Your task to perform on an android device: check storage Image 0: 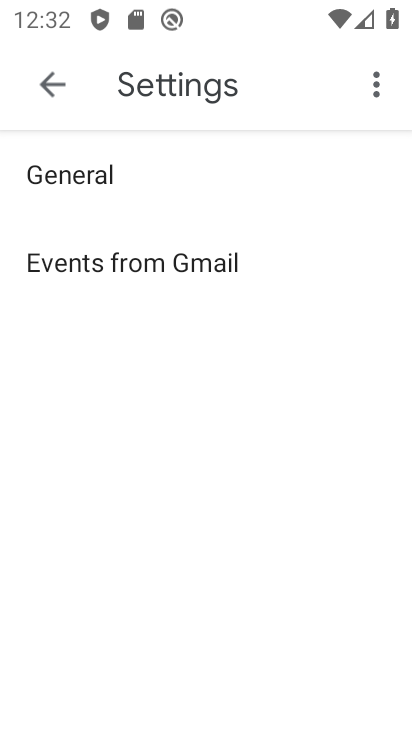
Step 0: press home button
Your task to perform on an android device: check storage Image 1: 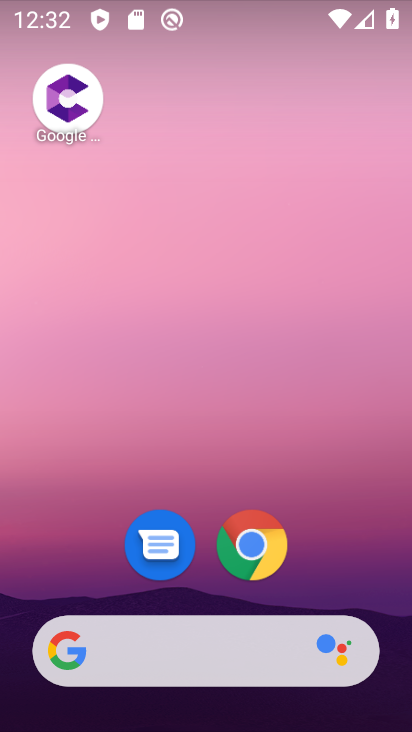
Step 1: drag from (343, 569) to (310, 210)
Your task to perform on an android device: check storage Image 2: 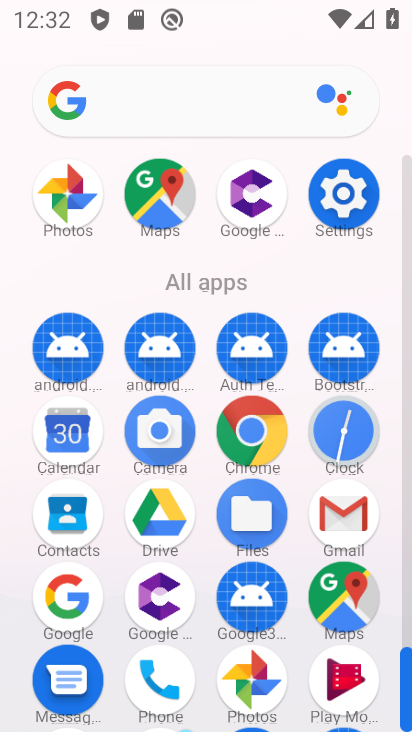
Step 2: click (363, 211)
Your task to perform on an android device: check storage Image 3: 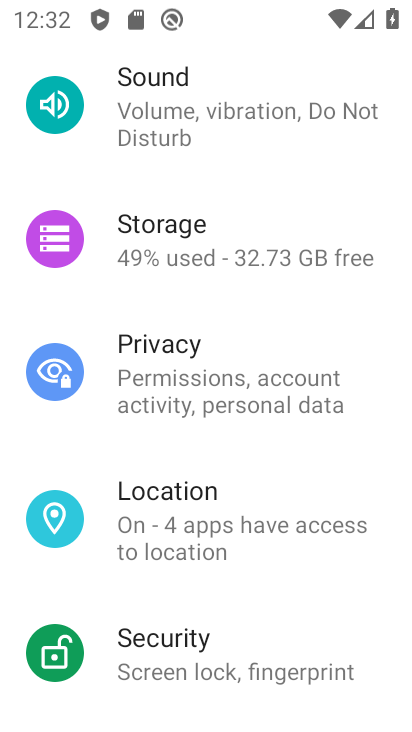
Step 3: drag from (327, 620) to (321, 335)
Your task to perform on an android device: check storage Image 4: 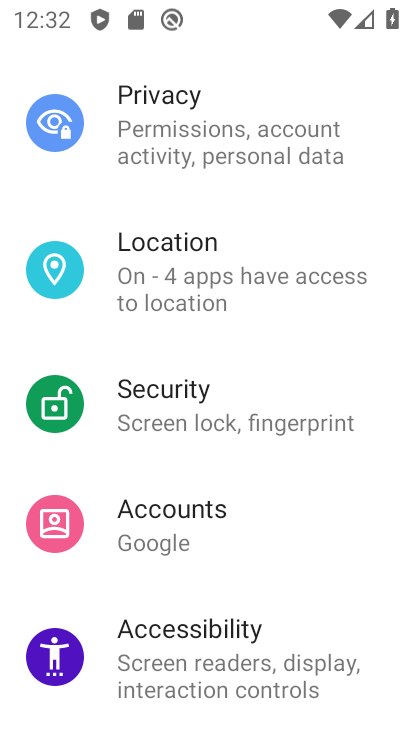
Step 4: drag from (272, 270) to (268, 552)
Your task to perform on an android device: check storage Image 5: 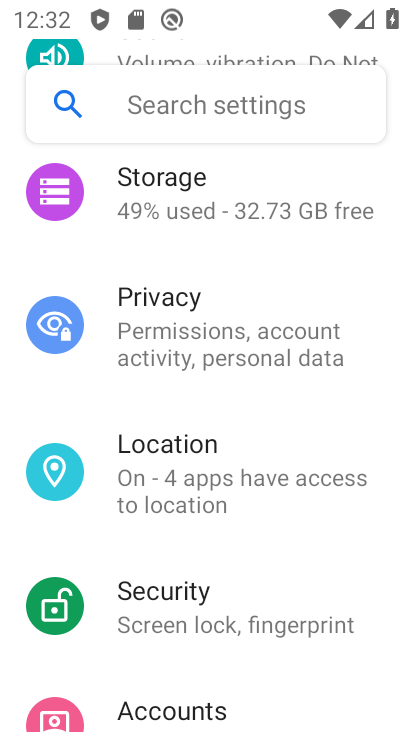
Step 5: drag from (269, 276) to (272, 485)
Your task to perform on an android device: check storage Image 6: 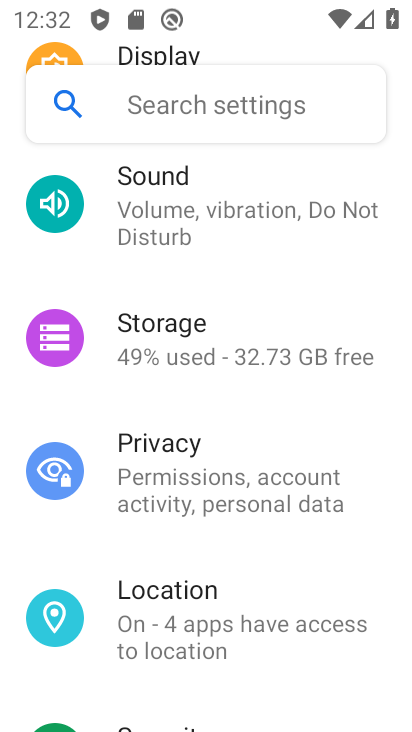
Step 6: click (248, 359)
Your task to perform on an android device: check storage Image 7: 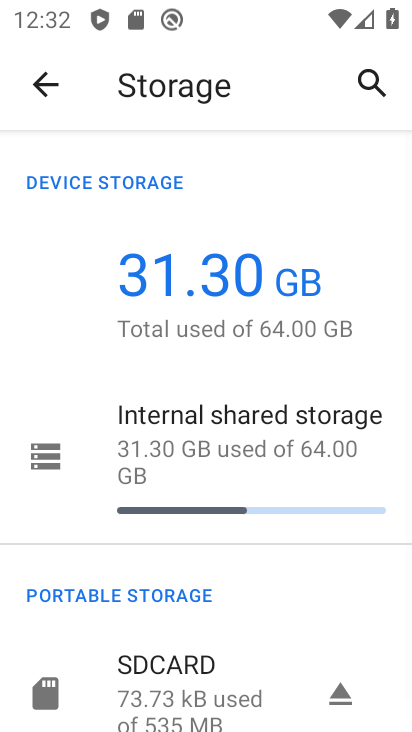
Step 7: click (32, 453)
Your task to perform on an android device: check storage Image 8: 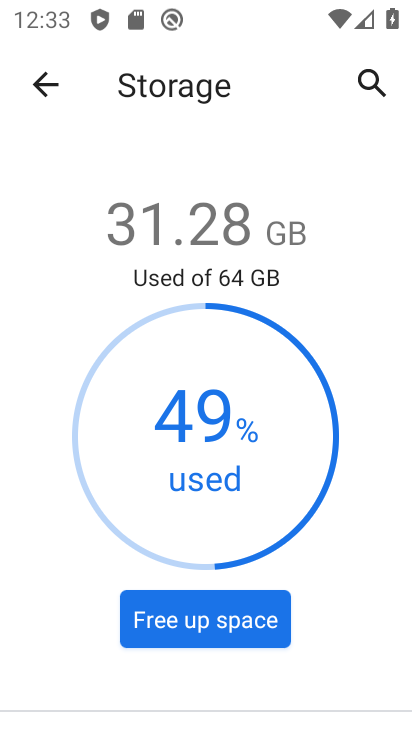
Step 8: task complete